Your task to perform on an android device: Search for sushi restaurants on Maps Image 0: 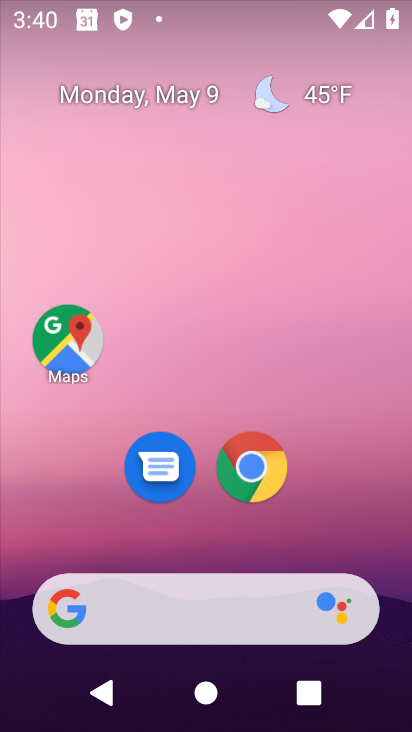
Step 0: click (64, 357)
Your task to perform on an android device: Search for sushi restaurants on Maps Image 1: 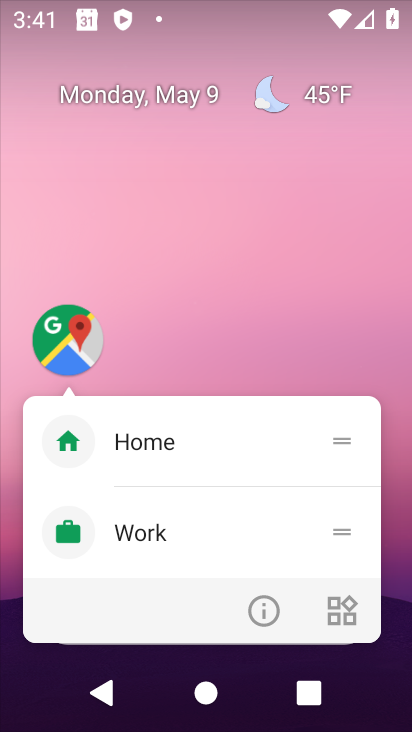
Step 1: click (83, 348)
Your task to perform on an android device: Search for sushi restaurants on Maps Image 2: 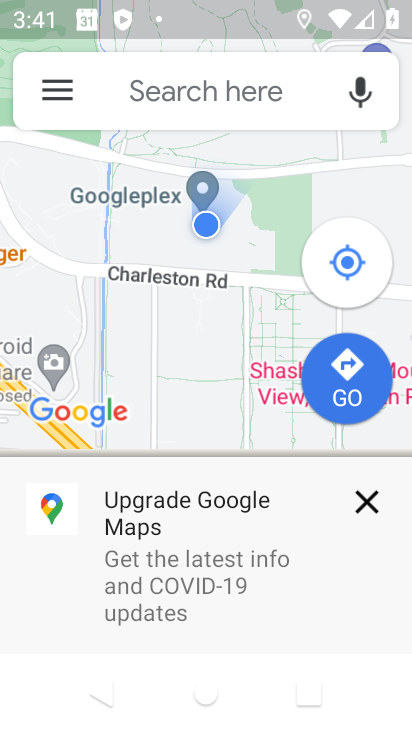
Step 2: click (293, 89)
Your task to perform on an android device: Search for sushi restaurants on Maps Image 3: 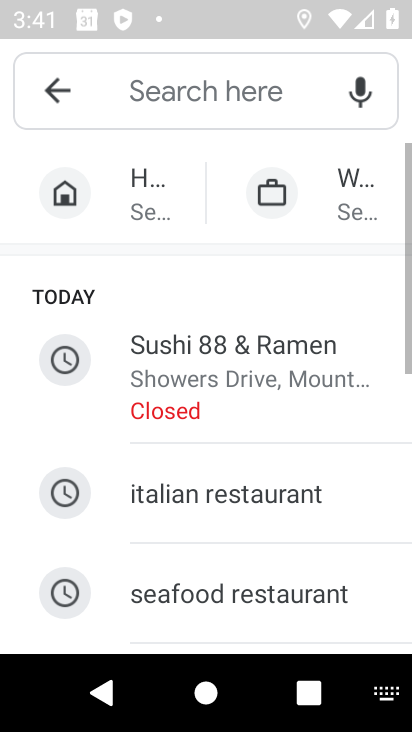
Step 3: drag from (298, 556) to (302, 234)
Your task to perform on an android device: Search for sushi restaurants on Maps Image 4: 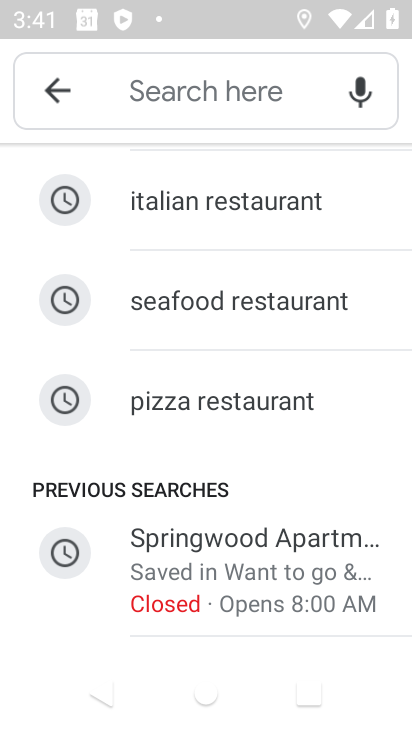
Step 4: click (141, 89)
Your task to perform on an android device: Search for sushi restaurants on Maps Image 5: 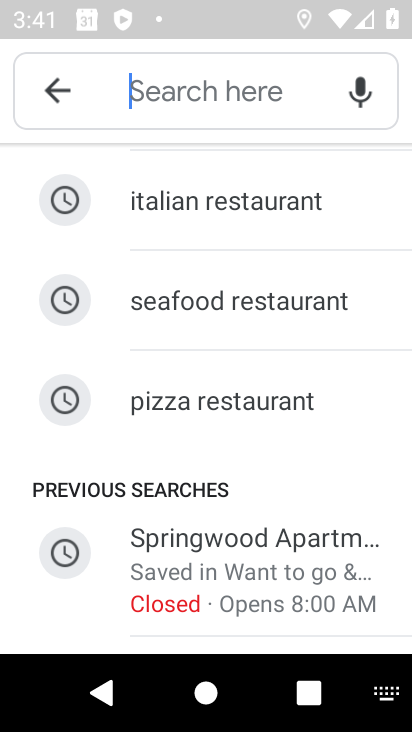
Step 5: type "sushi restaurant"
Your task to perform on an android device: Search for sushi restaurants on Maps Image 6: 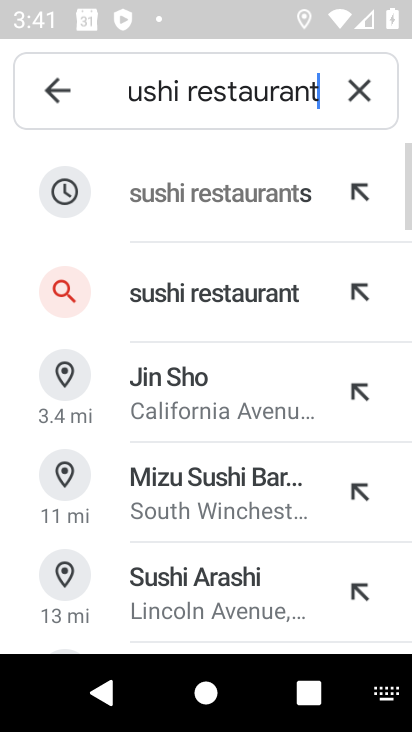
Step 6: click (283, 196)
Your task to perform on an android device: Search for sushi restaurants on Maps Image 7: 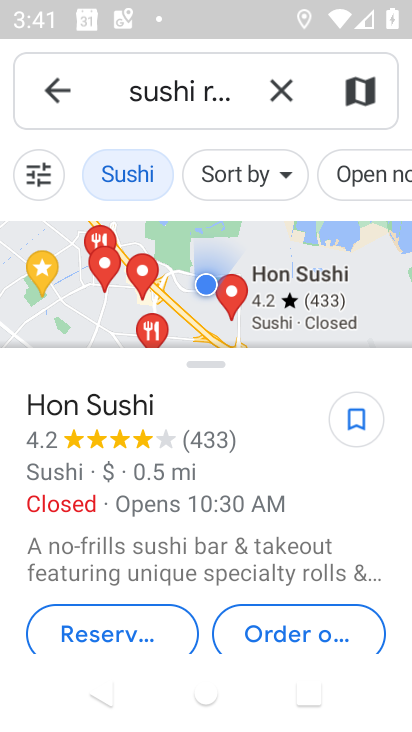
Step 7: task complete